Your task to perform on an android device: Open the Play Movies app and select the watchlist tab. Image 0: 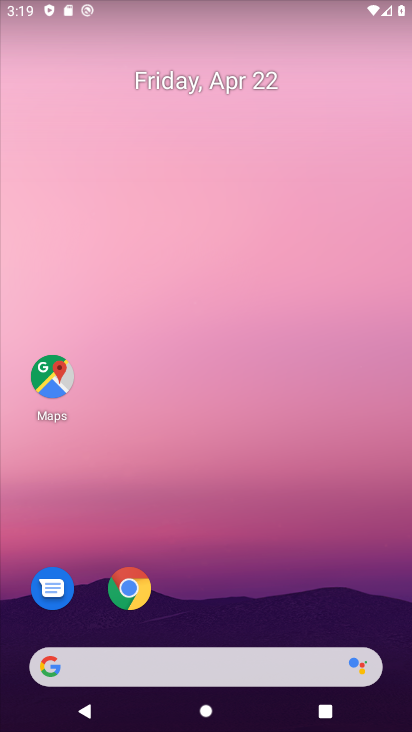
Step 0: drag from (201, 633) to (287, 23)
Your task to perform on an android device: Open the Play Movies app and select the watchlist tab. Image 1: 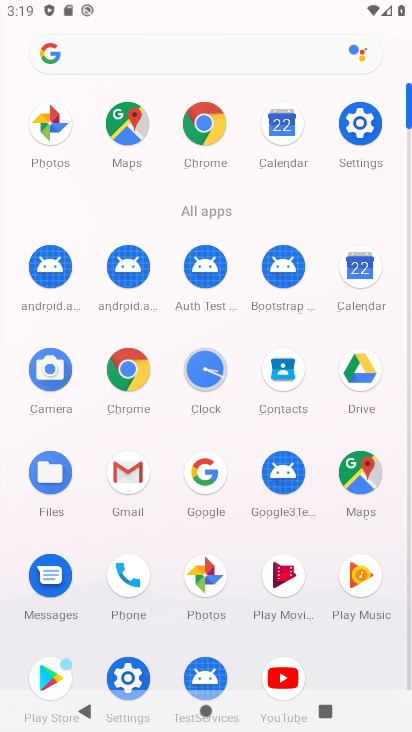
Step 1: click (288, 576)
Your task to perform on an android device: Open the Play Movies app and select the watchlist tab. Image 2: 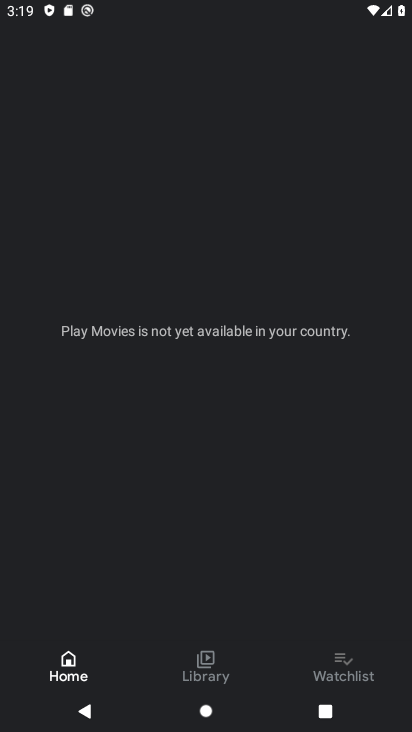
Step 2: click (361, 656)
Your task to perform on an android device: Open the Play Movies app and select the watchlist tab. Image 3: 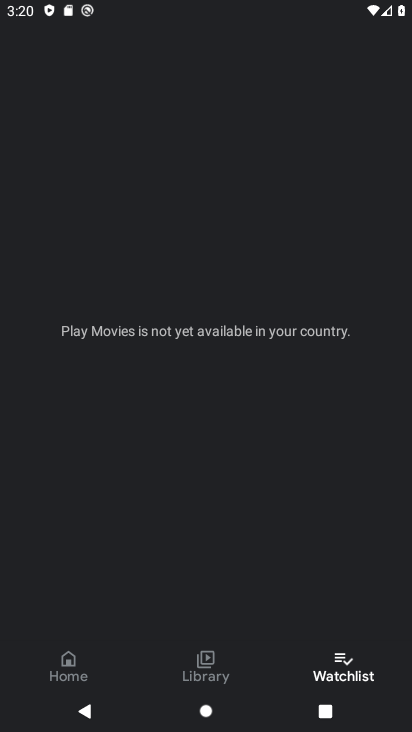
Step 3: task complete